Your task to perform on an android device: open app "Truecaller" (install if not already installed) Image 0: 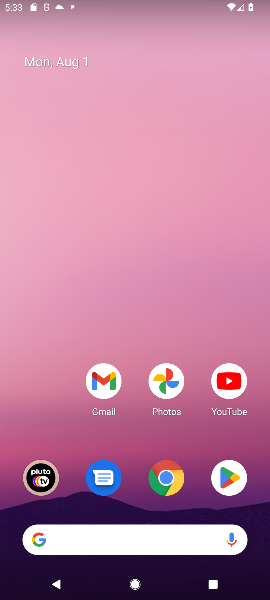
Step 0: click (236, 485)
Your task to perform on an android device: open app "Truecaller" (install if not already installed) Image 1: 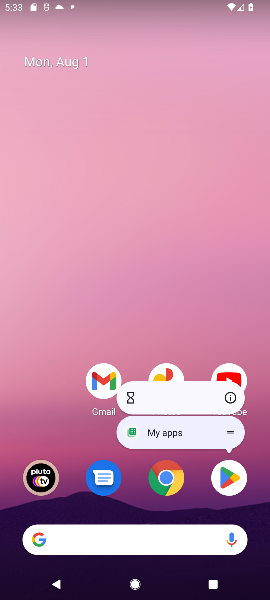
Step 1: click (227, 485)
Your task to perform on an android device: open app "Truecaller" (install if not already installed) Image 2: 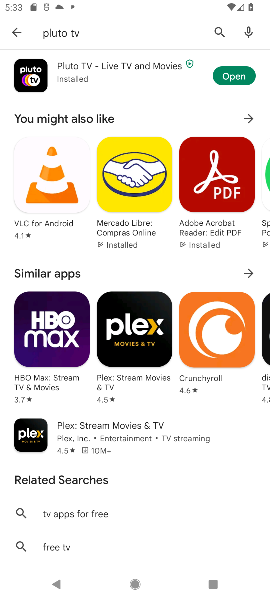
Step 2: click (216, 25)
Your task to perform on an android device: open app "Truecaller" (install if not already installed) Image 3: 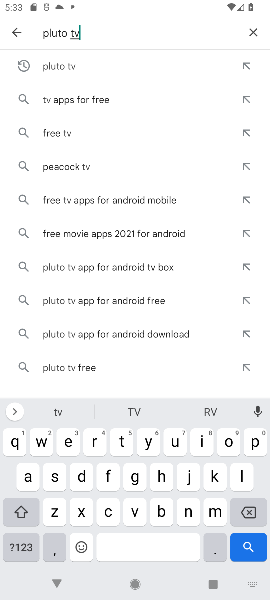
Step 3: click (252, 31)
Your task to perform on an android device: open app "Truecaller" (install if not already installed) Image 4: 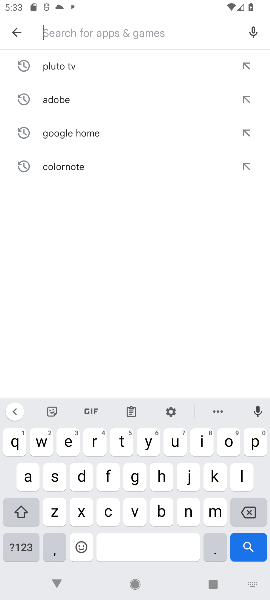
Step 4: click (123, 435)
Your task to perform on an android device: open app "Truecaller" (install if not already installed) Image 5: 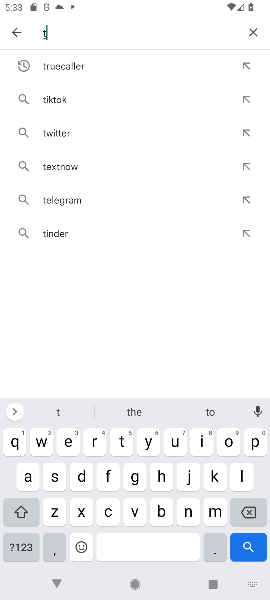
Step 5: click (88, 439)
Your task to perform on an android device: open app "Truecaller" (install if not already installed) Image 6: 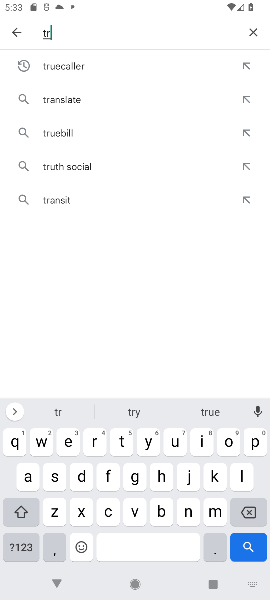
Step 6: click (80, 66)
Your task to perform on an android device: open app "Truecaller" (install if not already installed) Image 7: 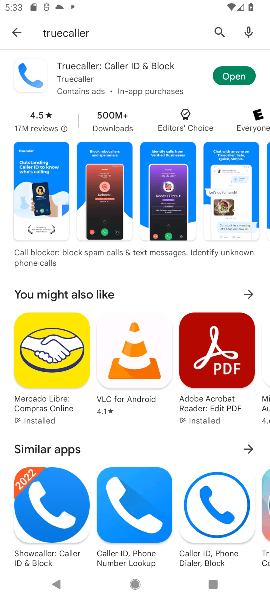
Step 7: click (232, 75)
Your task to perform on an android device: open app "Truecaller" (install if not already installed) Image 8: 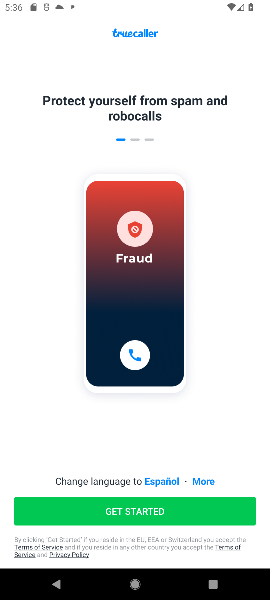
Step 8: task complete